Your task to perform on an android device: turn on the 24-hour format for clock Image 0: 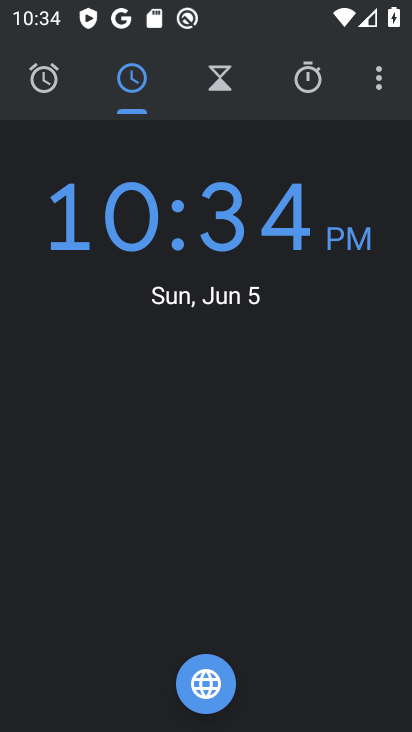
Step 0: press back button
Your task to perform on an android device: turn on the 24-hour format for clock Image 1: 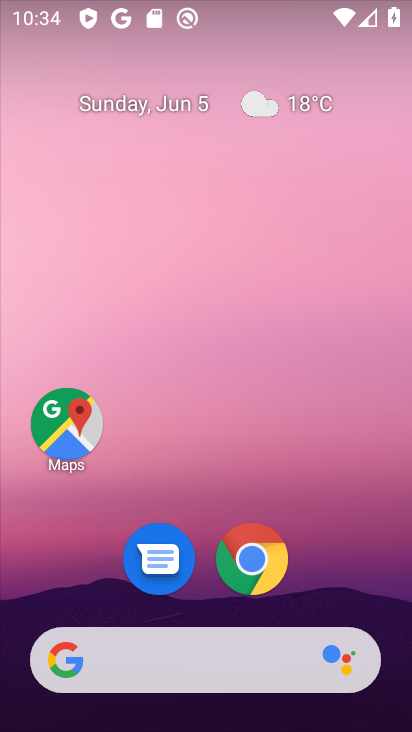
Step 1: drag from (214, 598) to (218, 16)
Your task to perform on an android device: turn on the 24-hour format for clock Image 2: 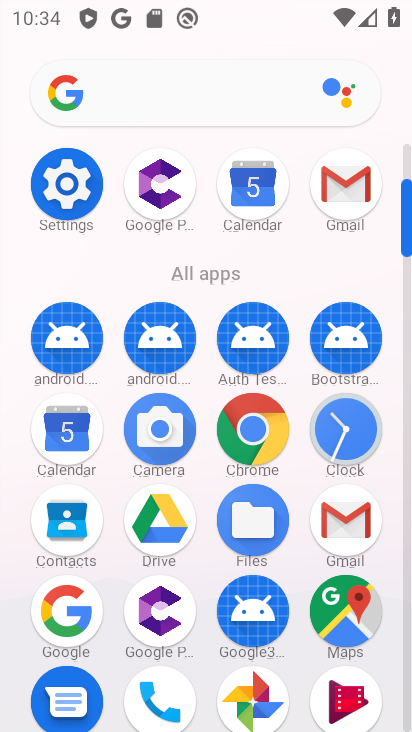
Step 2: click (339, 436)
Your task to perform on an android device: turn on the 24-hour format for clock Image 3: 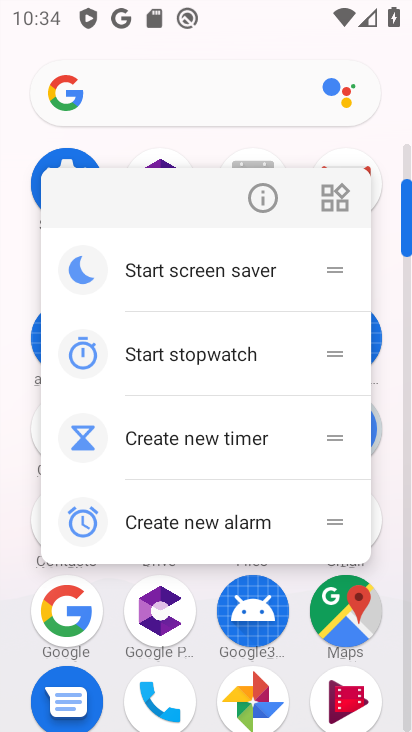
Step 3: click (170, 349)
Your task to perform on an android device: turn on the 24-hour format for clock Image 4: 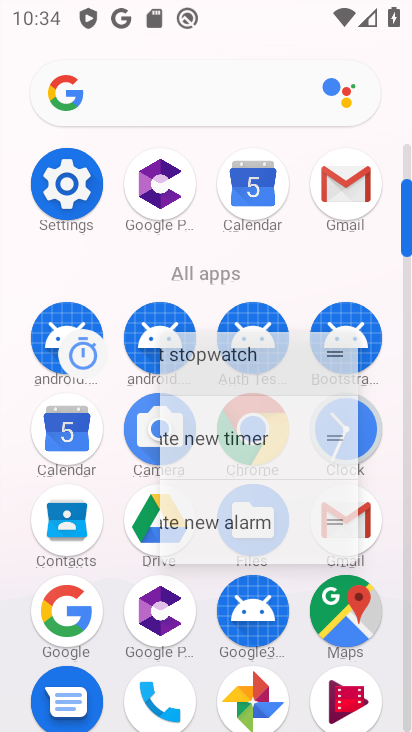
Step 4: click (174, 356)
Your task to perform on an android device: turn on the 24-hour format for clock Image 5: 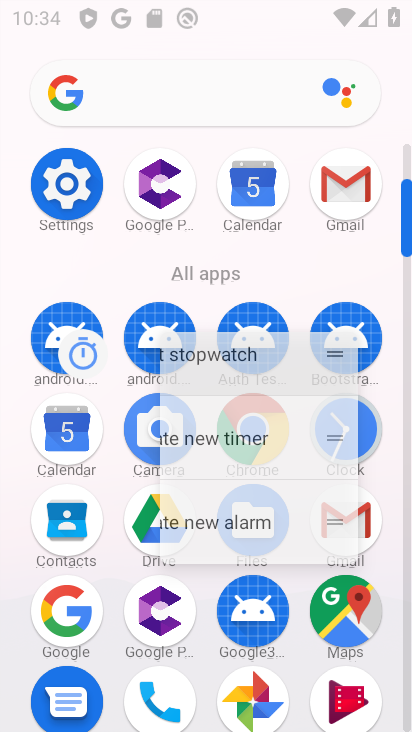
Step 5: click (183, 362)
Your task to perform on an android device: turn on the 24-hour format for clock Image 6: 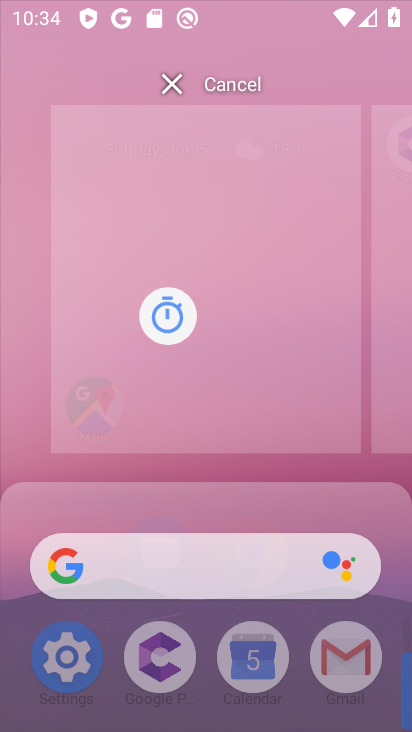
Step 6: click (197, 350)
Your task to perform on an android device: turn on the 24-hour format for clock Image 7: 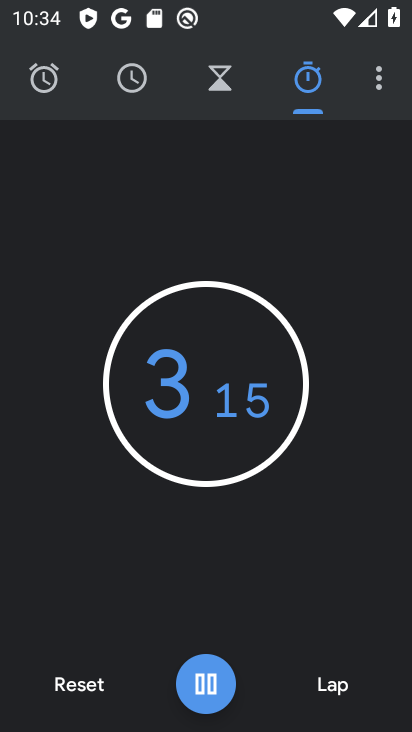
Step 7: click (205, 691)
Your task to perform on an android device: turn on the 24-hour format for clock Image 8: 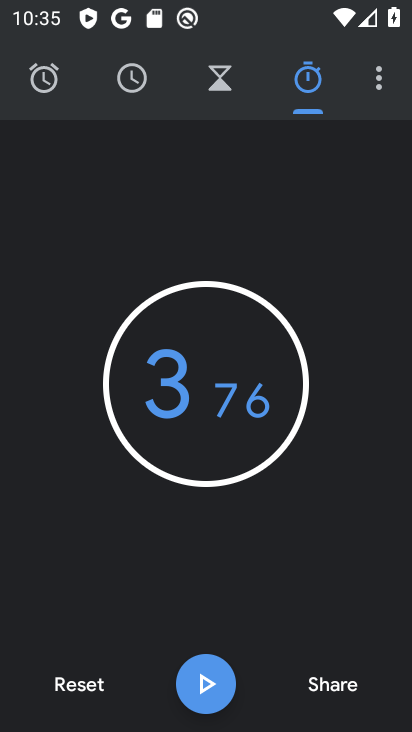
Step 8: click (374, 76)
Your task to perform on an android device: turn on the 24-hour format for clock Image 9: 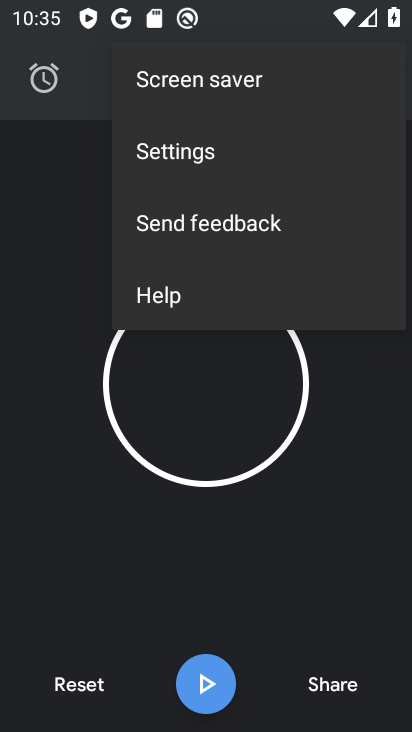
Step 9: click (159, 147)
Your task to perform on an android device: turn on the 24-hour format for clock Image 10: 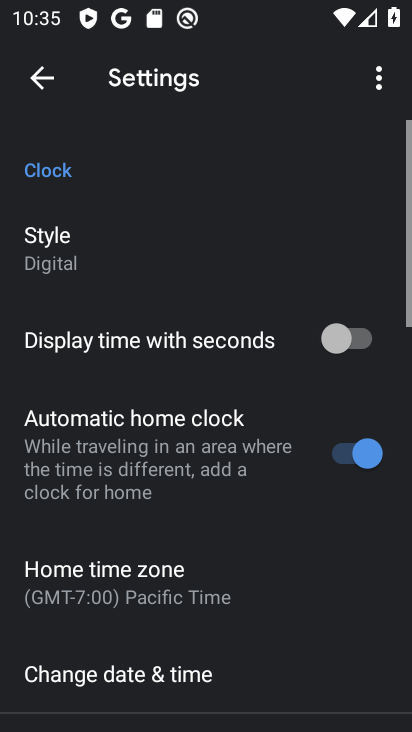
Step 10: click (164, 200)
Your task to perform on an android device: turn on the 24-hour format for clock Image 11: 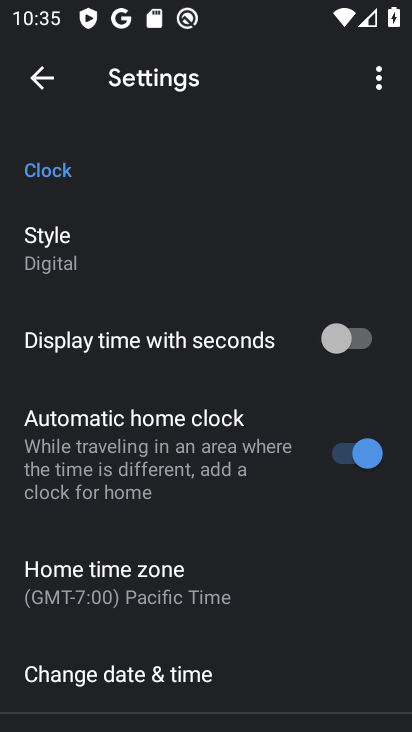
Step 11: drag from (207, 623) to (203, 272)
Your task to perform on an android device: turn on the 24-hour format for clock Image 12: 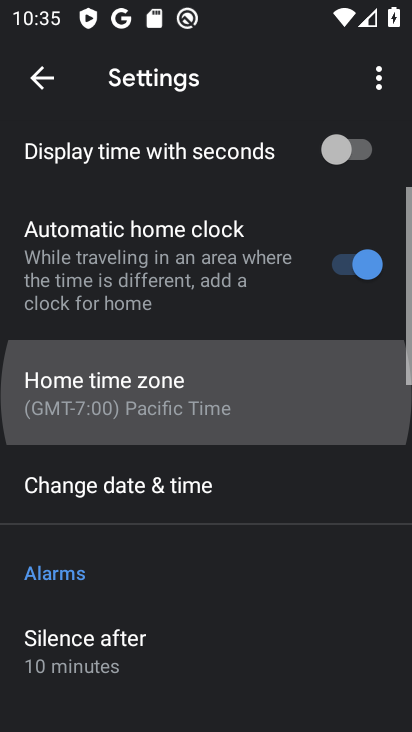
Step 12: drag from (204, 429) to (202, 142)
Your task to perform on an android device: turn on the 24-hour format for clock Image 13: 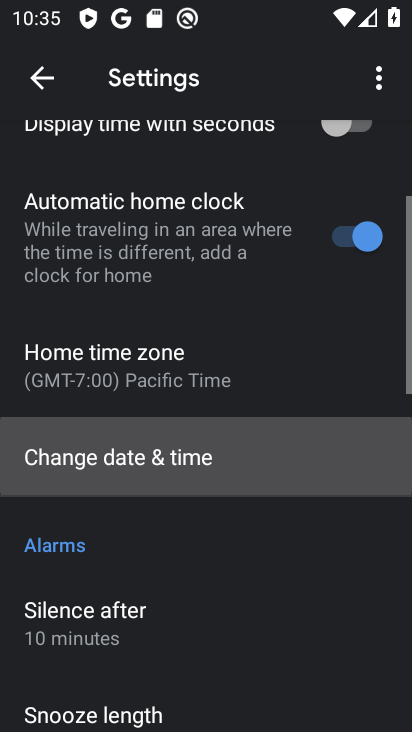
Step 13: drag from (205, 442) to (205, 154)
Your task to perform on an android device: turn on the 24-hour format for clock Image 14: 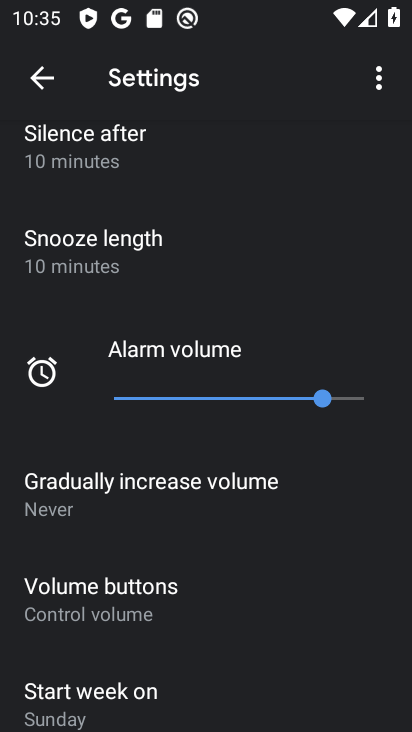
Step 14: drag from (164, 573) to (139, 121)
Your task to perform on an android device: turn on the 24-hour format for clock Image 15: 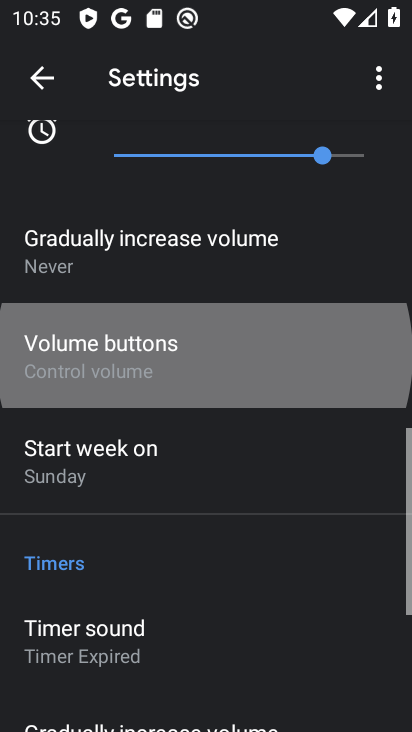
Step 15: drag from (144, 530) to (121, 106)
Your task to perform on an android device: turn on the 24-hour format for clock Image 16: 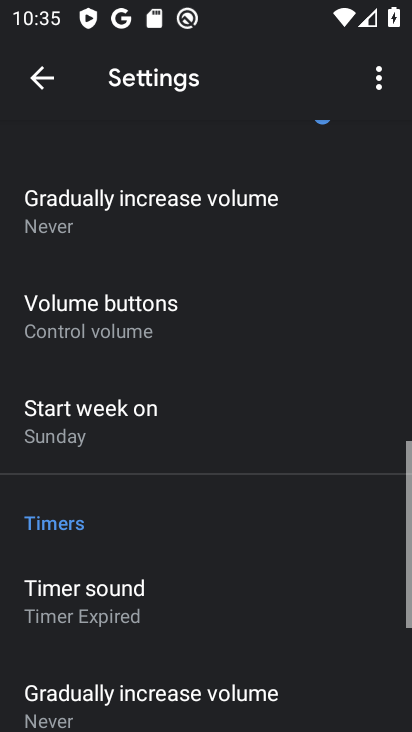
Step 16: click (135, 143)
Your task to perform on an android device: turn on the 24-hour format for clock Image 17: 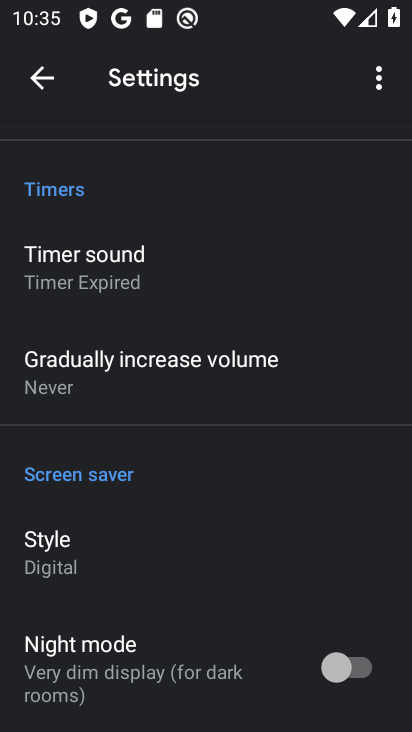
Step 17: drag from (240, 505) to (225, 191)
Your task to perform on an android device: turn on the 24-hour format for clock Image 18: 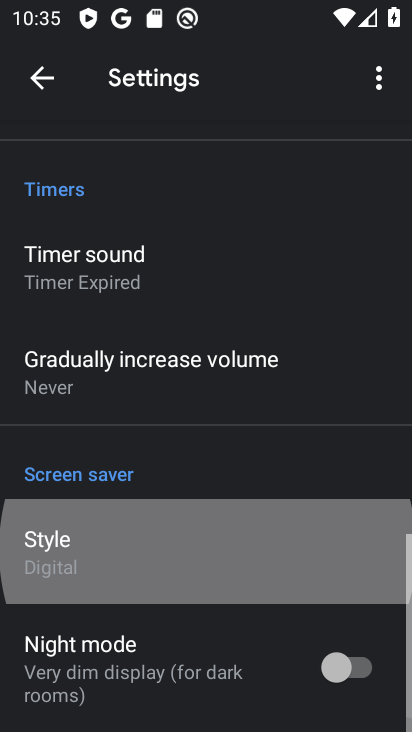
Step 18: drag from (102, 518) to (130, 197)
Your task to perform on an android device: turn on the 24-hour format for clock Image 19: 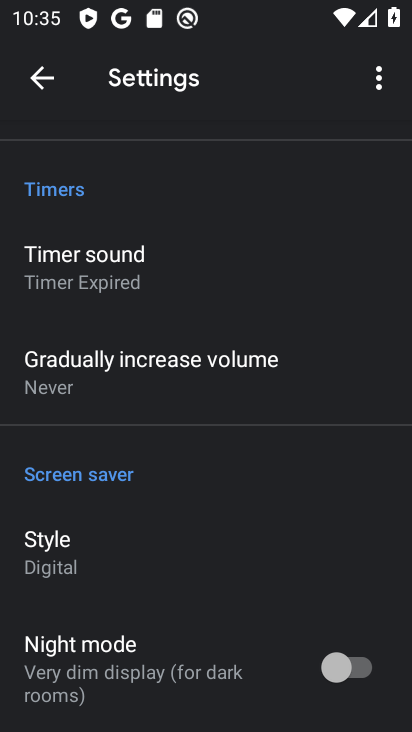
Step 19: drag from (165, 160) to (166, 398)
Your task to perform on an android device: turn on the 24-hour format for clock Image 20: 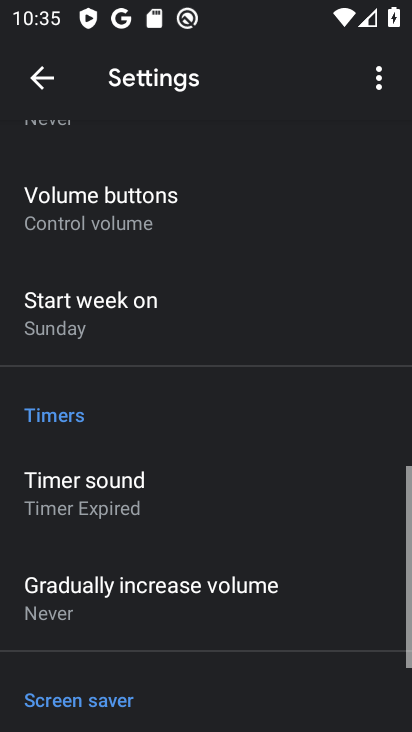
Step 20: drag from (161, 346) to (164, 549)
Your task to perform on an android device: turn on the 24-hour format for clock Image 21: 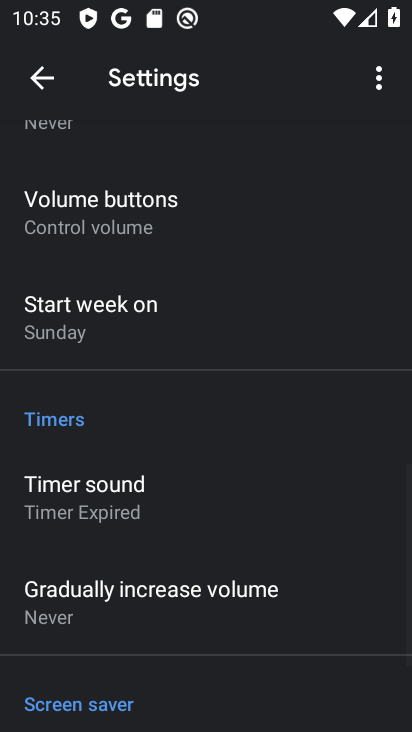
Step 21: drag from (153, 228) to (164, 566)
Your task to perform on an android device: turn on the 24-hour format for clock Image 22: 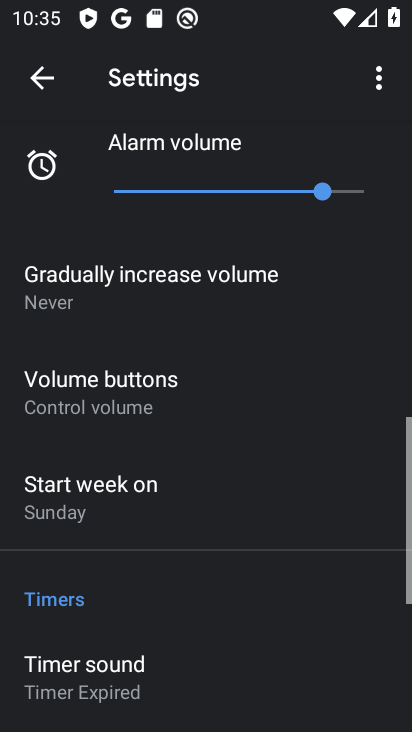
Step 22: drag from (177, 418) to (181, 587)
Your task to perform on an android device: turn on the 24-hour format for clock Image 23: 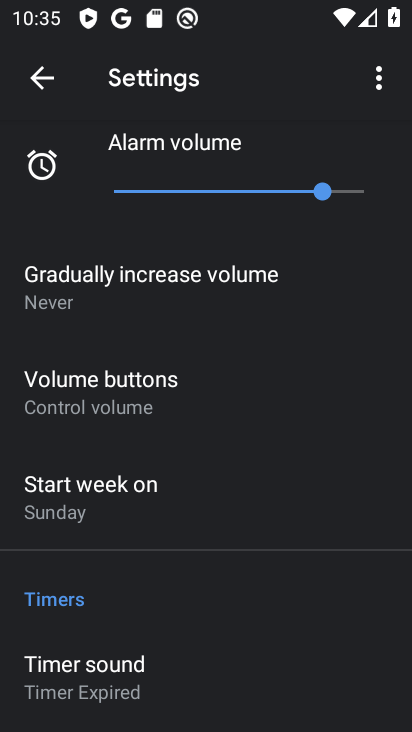
Step 23: drag from (197, 272) to (198, 560)
Your task to perform on an android device: turn on the 24-hour format for clock Image 24: 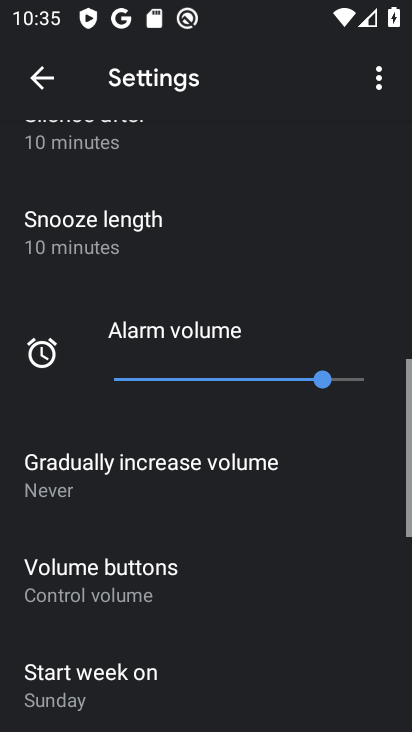
Step 24: drag from (225, 377) to (221, 620)
Your task to perform on an android device: turn on the 24-hour format for clock Image 25: 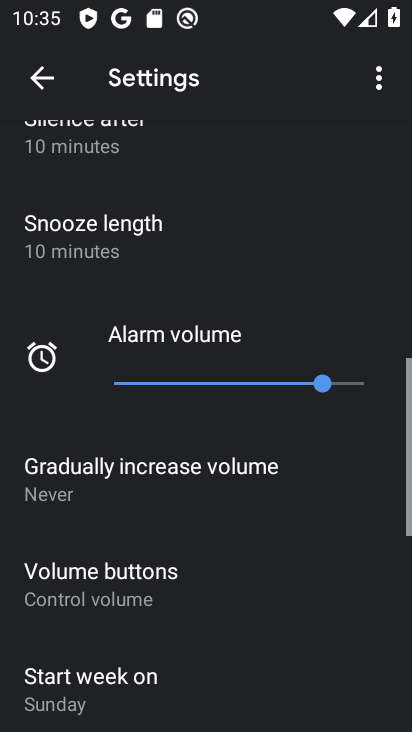
Step 25: drag from (168, 385) to (212, 697)
Your task to perform on an android device: turn on the 24-hour format for clock Image 26: 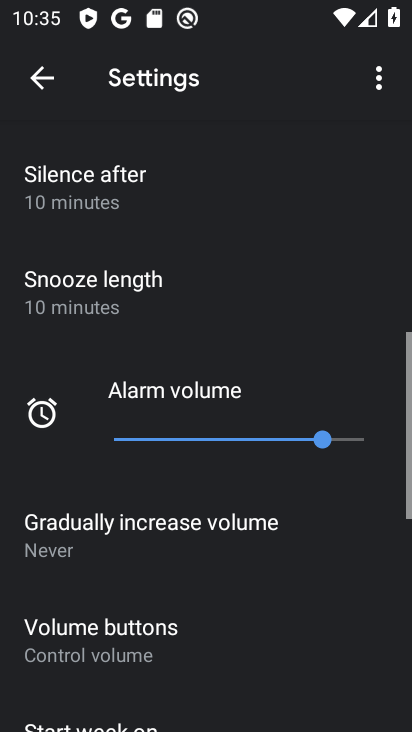
Step 26: drag from (200, 287) to (198, 536)
Your task to perform on an android device: turn on the 24-hour format for clock Image 27: 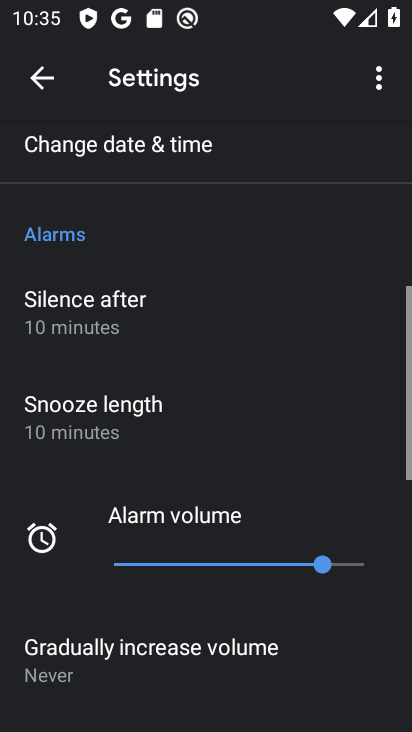
Step 27: drag from (226, 320) to (241, 536)
Your task to perform on an android device: turn on the 24-hour format for clock Image 28: 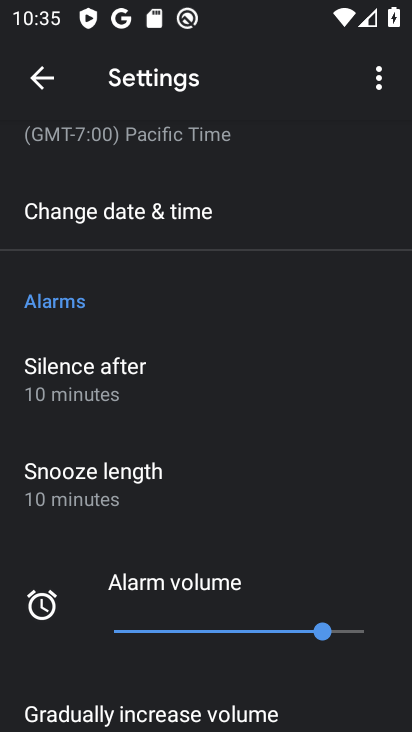
Step 28: click (212, 209)
Your task to perform on an android device: turn on the 24-hour format for clock Image 29: 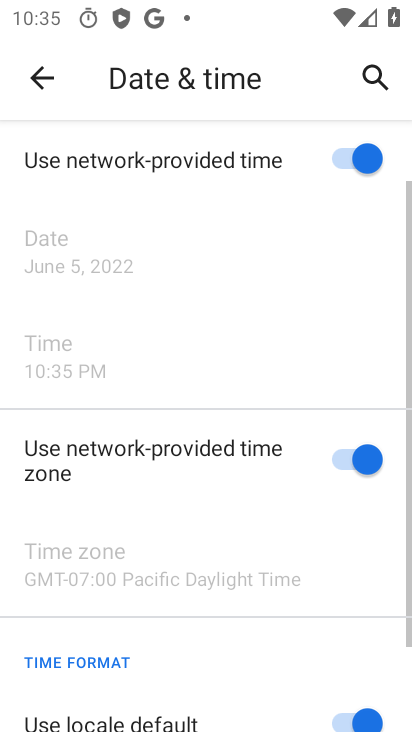
Step 29: drag from (212, 326) to (219, 139)
Your task to perform on an android device: turn on the 24-hour format for clock Image 30: 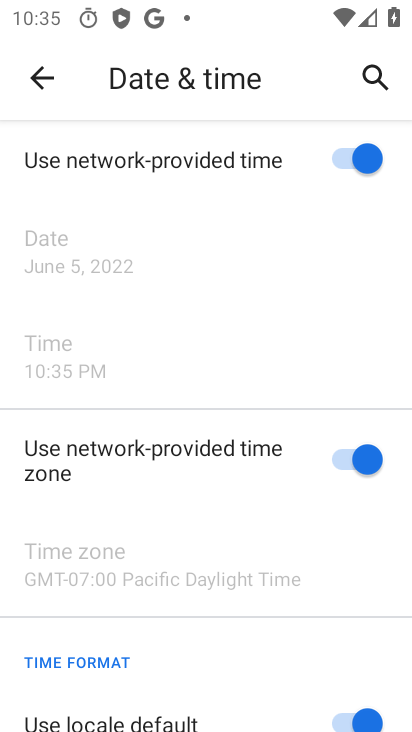
Step 30: drag from (207, 513) to (222, 167)
Your task to perform on an android device: turn on the 24-hour format for clock Image 31: 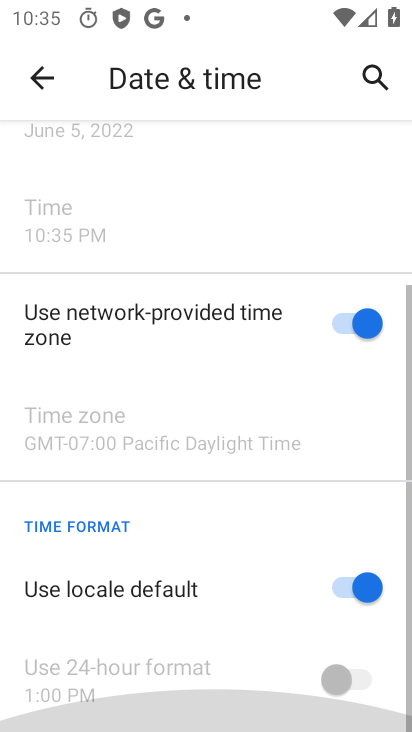
Step 31: drag from (204, 393) to (202, 155)
Your task to perform on an android device: turn on the 24-hour format for clock Image 32: 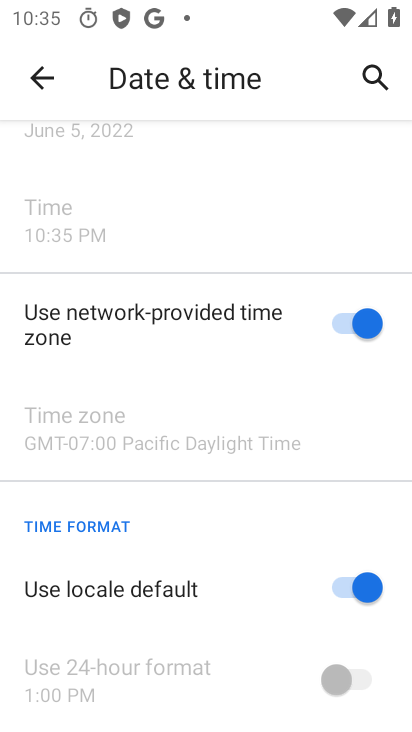
Step 32: click (358, 589)
Your task to perform on an android device: turn on the 24-hour format for clock Image 33: 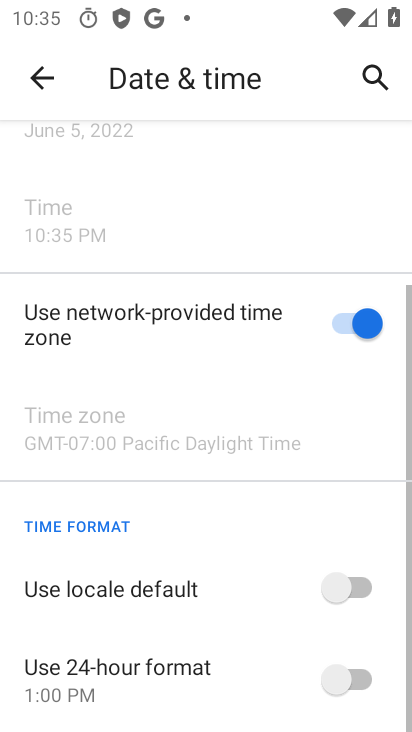
Step 33: click (334, 683)
Your task to perform on an android device: turn on the 24-hour format for clock Image 34: 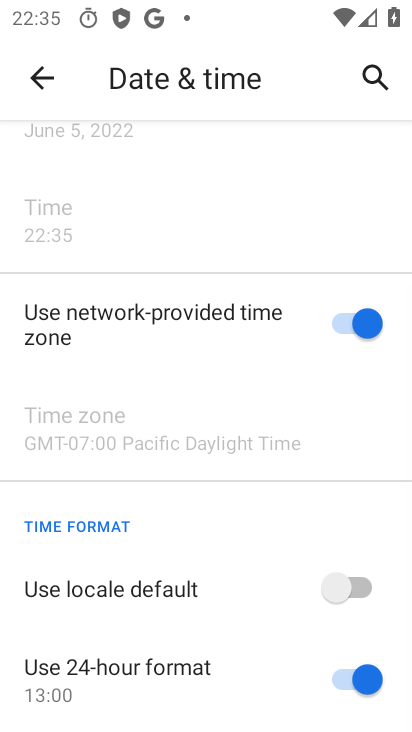
Step 34: task complete